Your task to perform on an android device: turn off data saver in the chrome app Image 0: 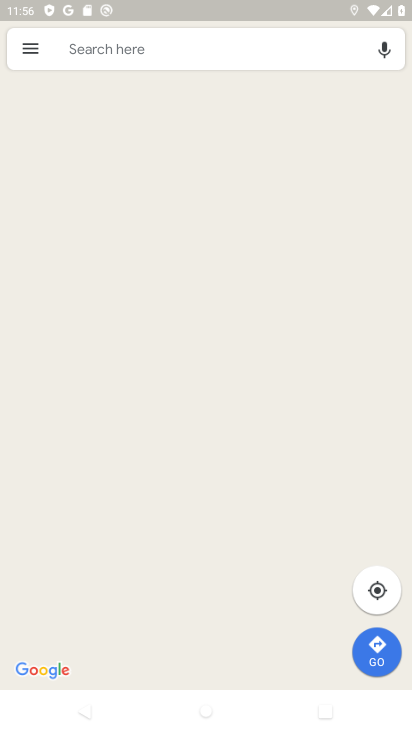
Step 0: drag from (227, 83) to (208, 36)
Your task to perform on an android device: turn off data saver in the chrome app Image 1: 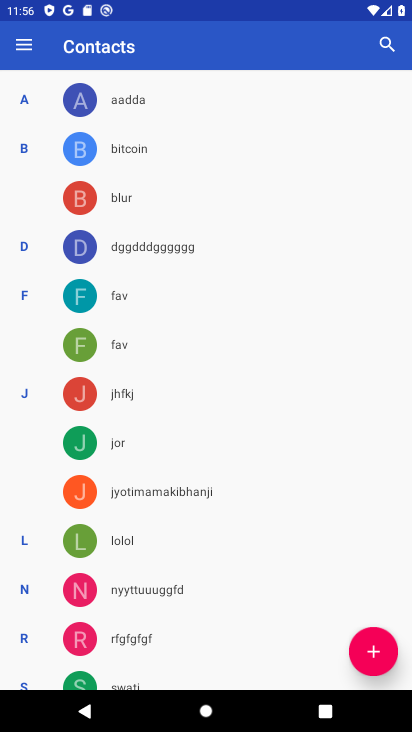
Step 1: press home button
Your task to perform on an android device: turn off data saver in the chrome app Image 2: 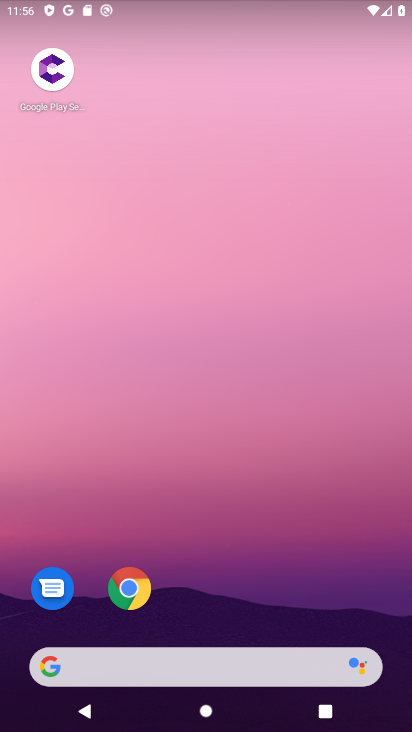
Step 2: click (134, 600)
Your task to perform on an android device: turn off data saver in the chrome app Image 3: 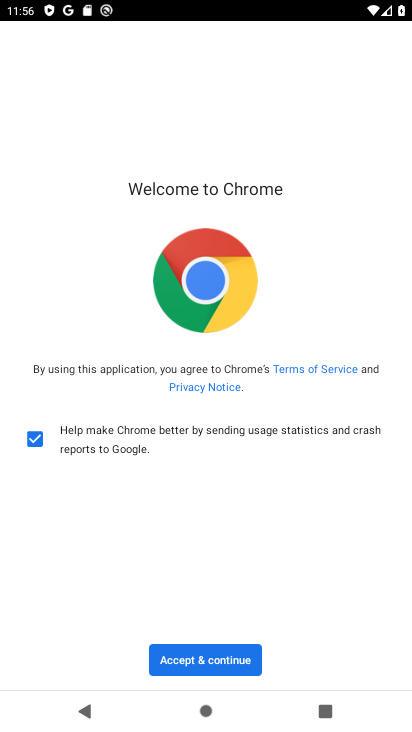
Step 3: click (218, 670)
Your task to perform on an android device: turn off data saver in the chrome app Image 4: 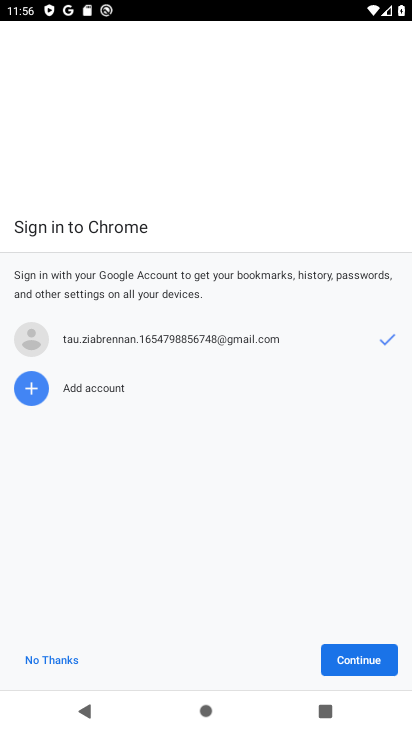
Step 4: click (362, 657)
Your task to perform on an android device: turn off data saver in the chrome app Image 5: 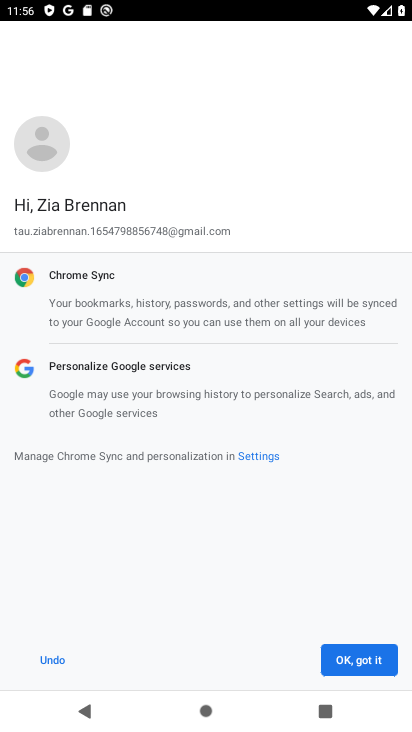
Step 5: click (362, 657)
Your task to perform on an android device: turn off data saver in the chrome app Image 6: 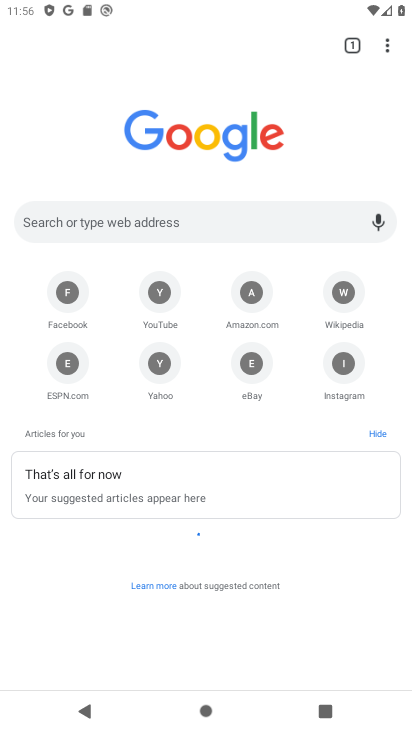
Step 6: click (390, 42)
Your task to perform on an android device: turn off data saver in the chrome app Image 7: 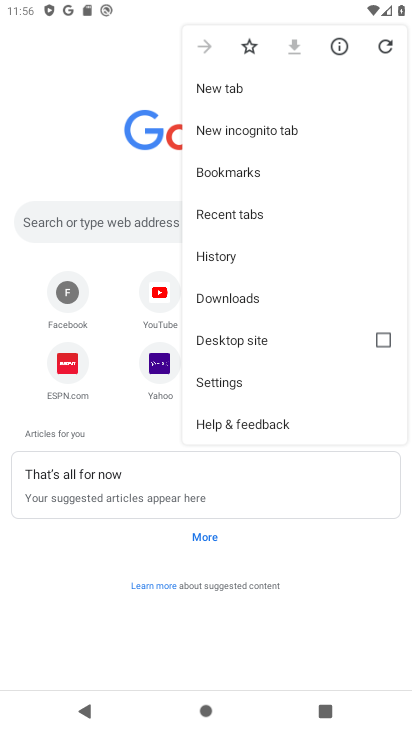
Step 7: click (224, 369)
Your task to perform on an android device: turn off data saver in the chrome app Image 8: 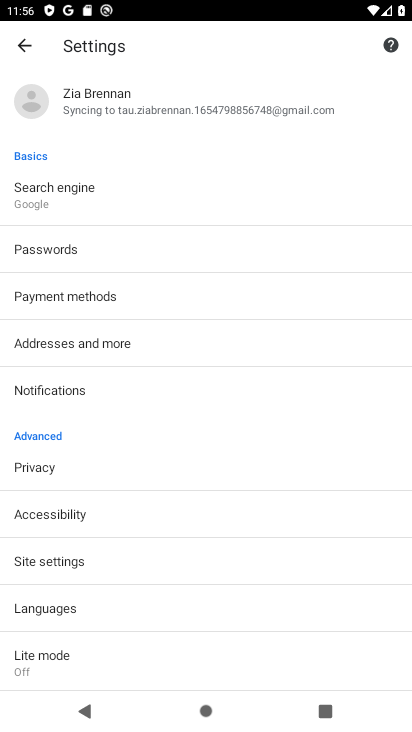
Step 8: click (91, 642)
Your task to perform on an android device: turn off data saver in the chrome app Image 9: 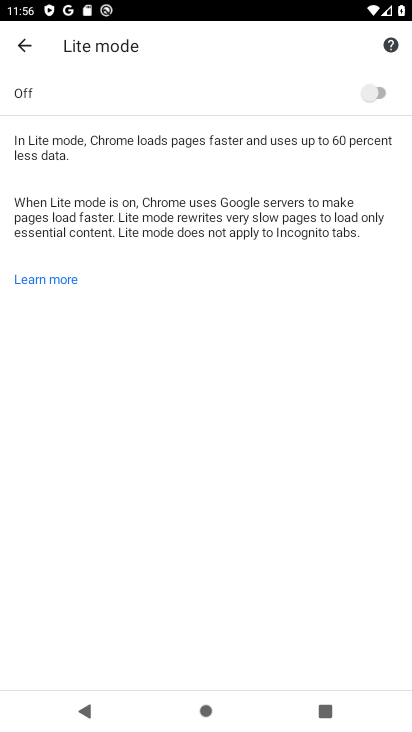
Step 9: task complete